Your task to perform on an android device: Do I have any events this weekend? Image 0: 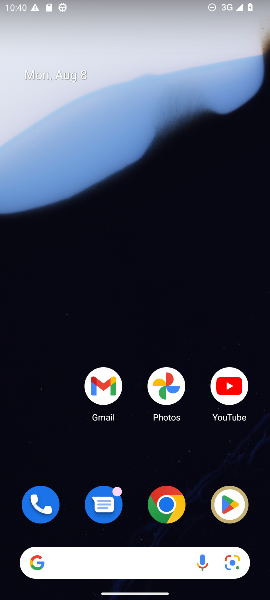
Step 0: drag from (134, 527) to (140, 197)
Your task to perform on an android device: Do I have any events this weekend? Image 1: 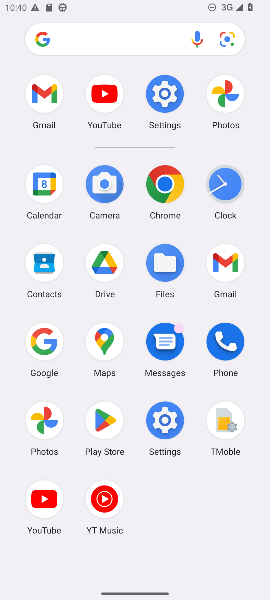
Step 1: click (39, 195)
Your task to perform on an android device: Do I have any events this weekend? Image 2: 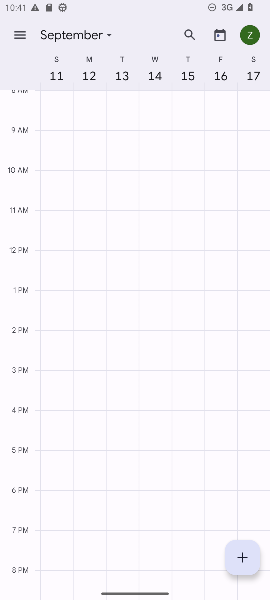
Step 2: click (72, 30)
Your task to perform on an android device: Do I have any events this weekend? Image 3: 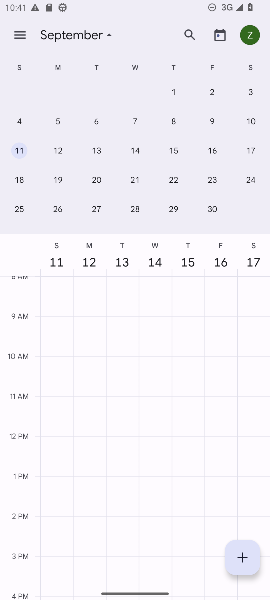
Step 3: drag from (46, 176) to (267, 157)
Your task to perform on an android device: Do I have any events this weekend? Image 4: 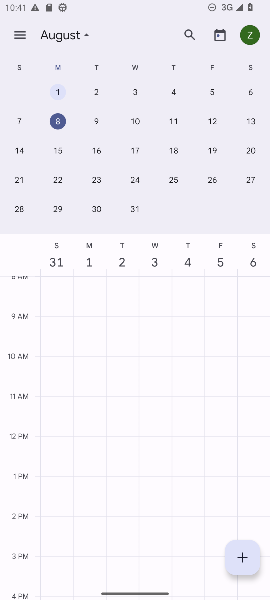
Step 4: click (57, 125)
Your task to perform on an android device: Do I have any events this weekend? Image 5: 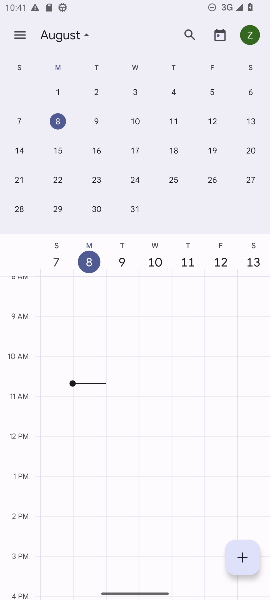
Step 5: click (21, 33)
Your task to perform on an android device: Do I have any events this weekend? Image 6: 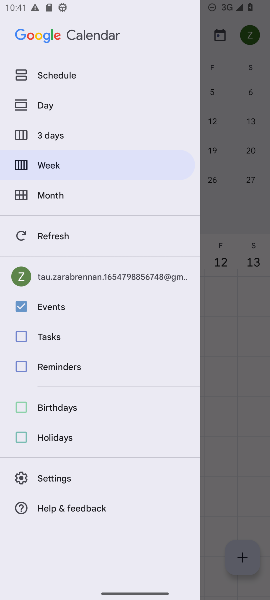
Step 6: click (56, 161)
Your task to perform on an android device: Do I have any events this weekend? Image 7: 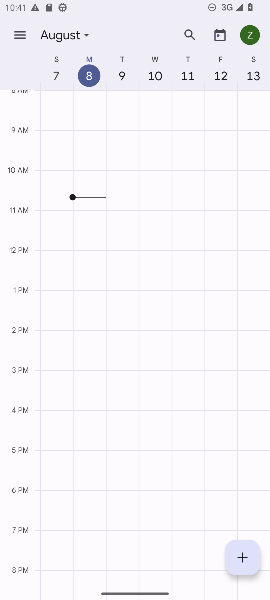
Step 7: task complete